Your task to perform on an android device: empty trash in the gmail app Image 0: 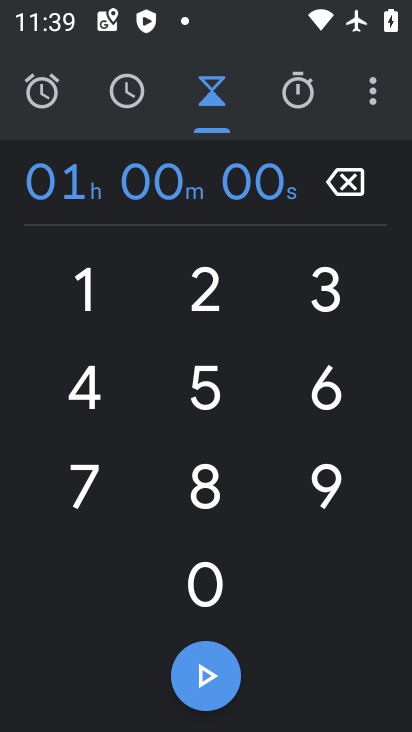
Step 0: drag from (172, 594) to (232, 155)
Your task to perform on an android device: empty trash in the gmail app Image 1: 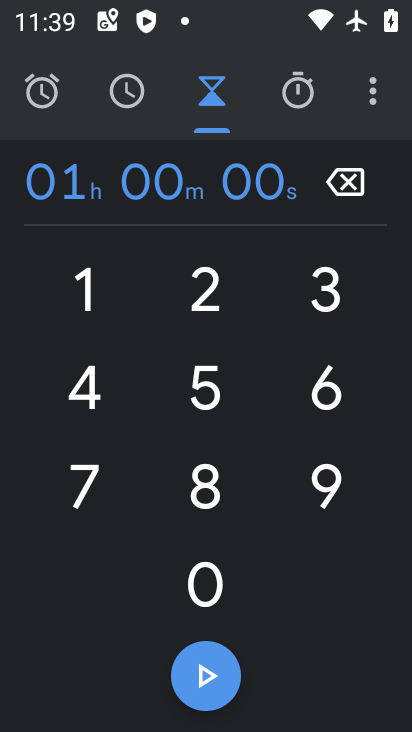
Step 1: press home button
Your task to perform on an android device: empty trash in the gmail app Image 2: 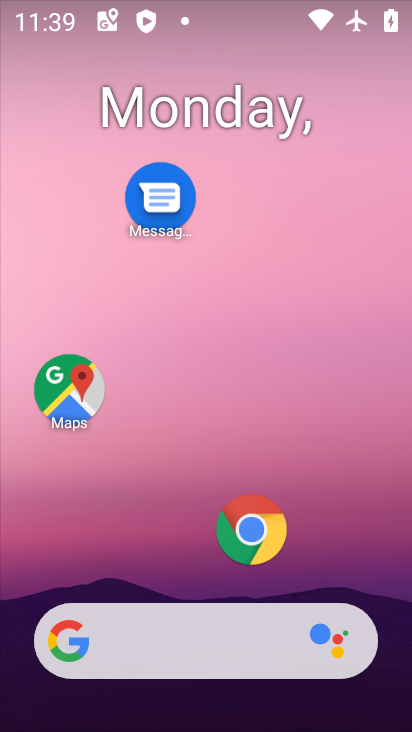
Step 2: drag from (168, 538) to (275, 0)
Your task to perform on an android device: empty trash in the gmail app Image 3: 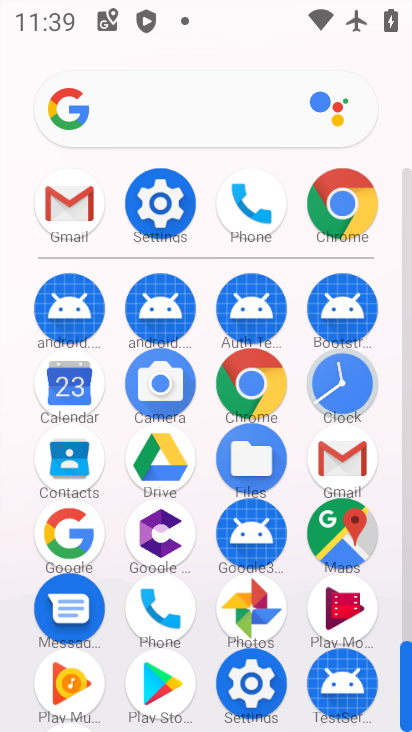
Step 3: click (339, 454)
Your task to perform on an android device: empty trash in the gmail app Image 4: 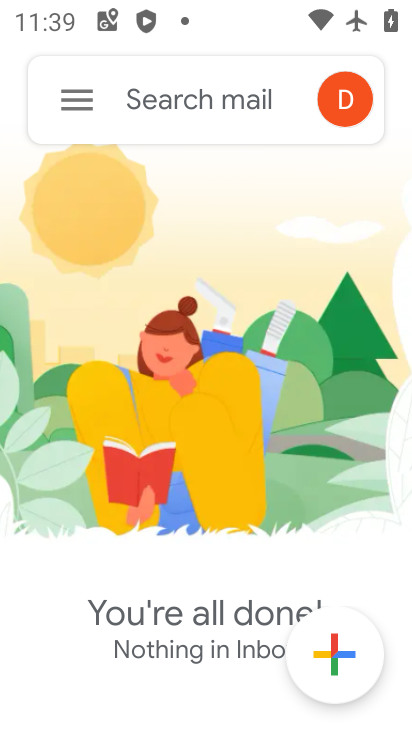
Step 4: click (79, 109)
Your task to perform on an android device: empty trash in the gmail app Image 5: 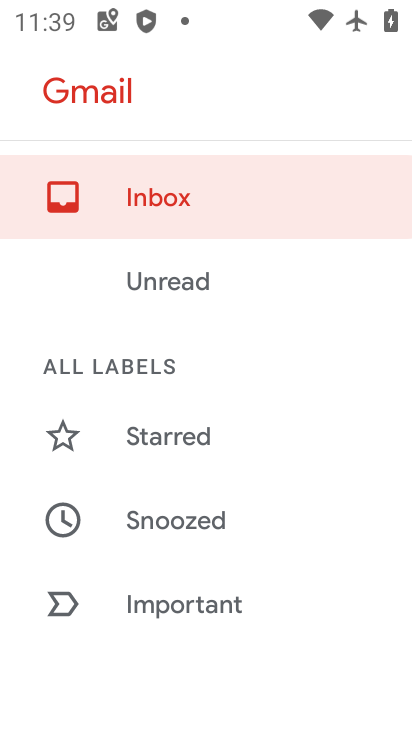
Step 5: drag from (189, 479) to (197, 136)
Your task to perform on an android device: empty trash in the gmail app Image 6: 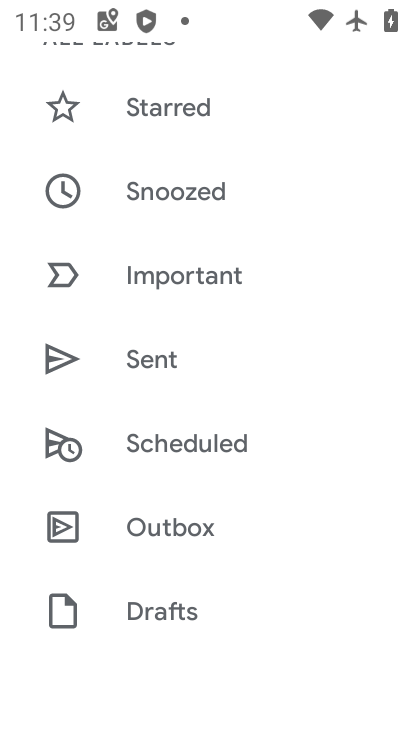
Step 6: drag from (200, 590) to (245, 225)
Your task to perform on an android device: empty trash in the gmail app Image 7: 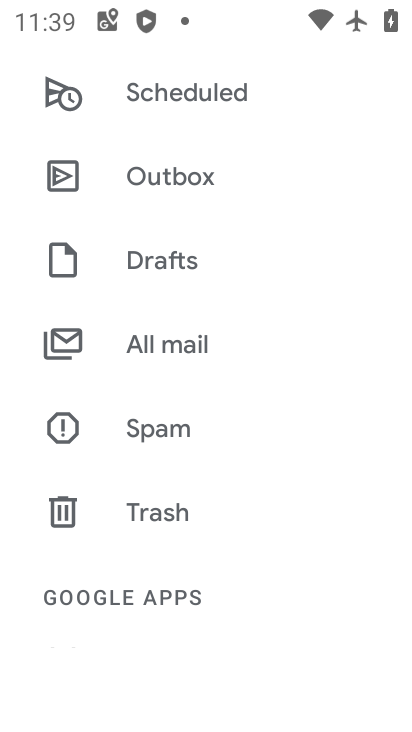
Step 7: click (202, 516)
Your task to perform on an android device: empty trash in the gmail app Image 8: 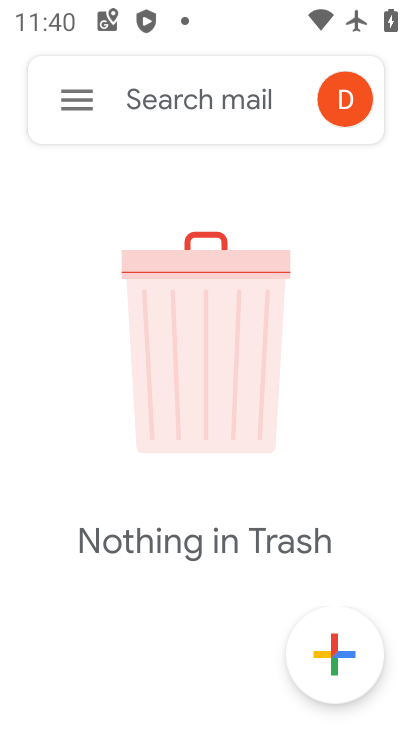
Step 8: task complete